Your task to perform on an android device: check google app version Image 0: 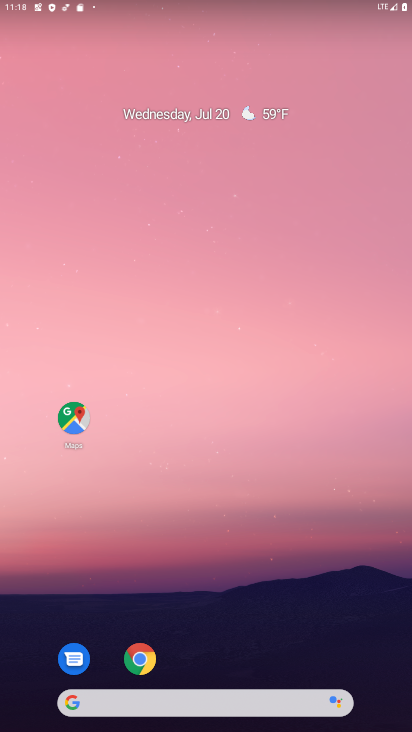
Step 0: drag from (209, 674) to (221, 177)
Your task to perform on an android device: check google app version Image 1: 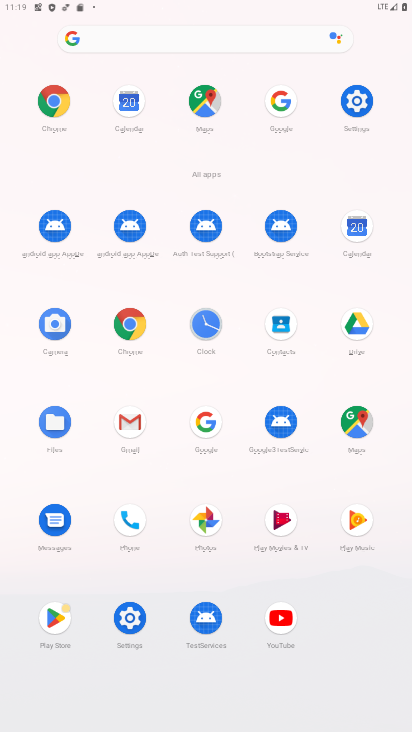
Step 1: click (276, 103)
Your task to perform on an android device: check google app version Image 2: 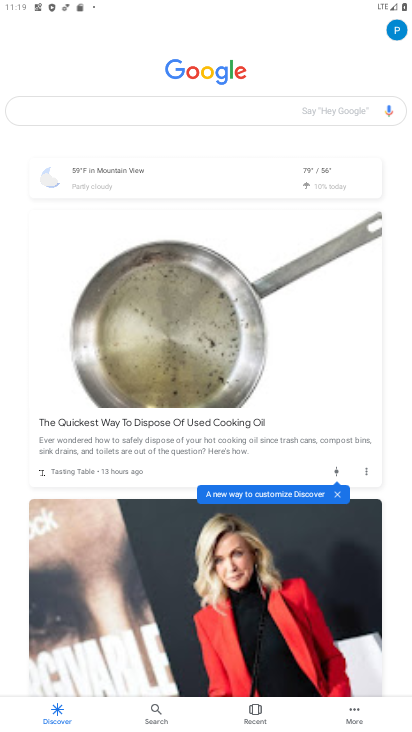
Step 2: click (353, 709)
Your task to perform on an android device: check google app version Image 3: 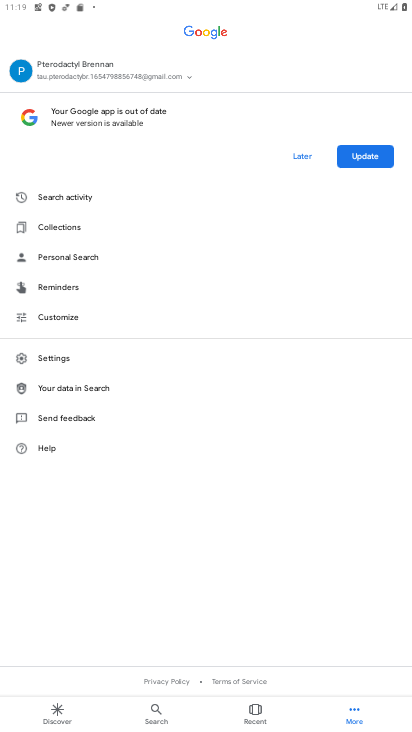
Step 3: click (52, 355)
Your task to perform on an android device: check google app version Image 4: 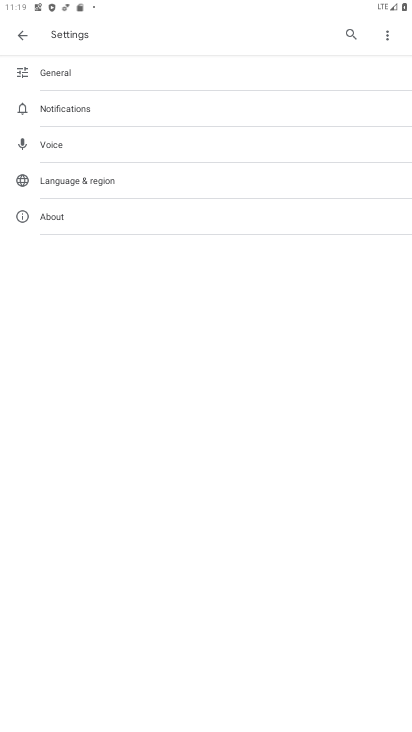
Step 4: click (38, 216)
Your task to perform on an android device: check google app version Image 5: 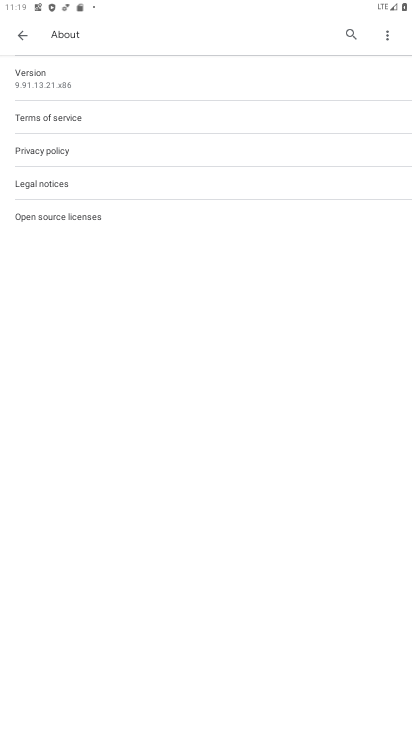
Step 5: task complete